Your task to perform on an android device: Open network settings Image 0: 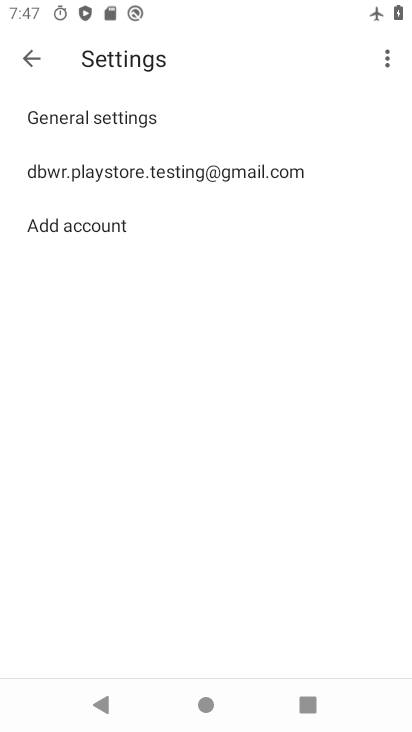
Step 0: press home button
Your task to perform on an android device: Open network settings Image 1: 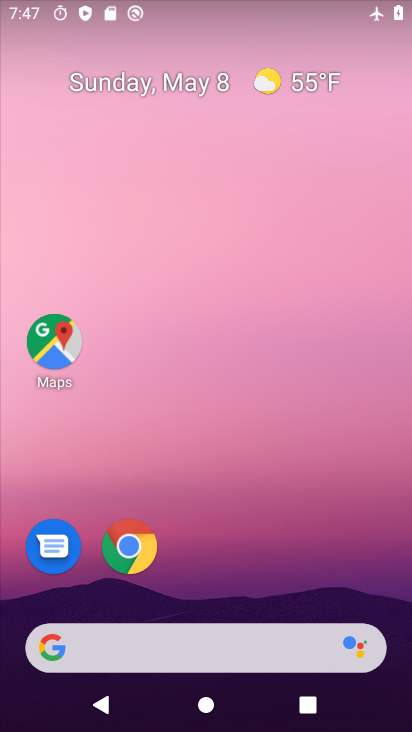
Step 1: drag from (218, 519) to (226, 2)
Your task to perform on an android device: Open network settings Image 2: 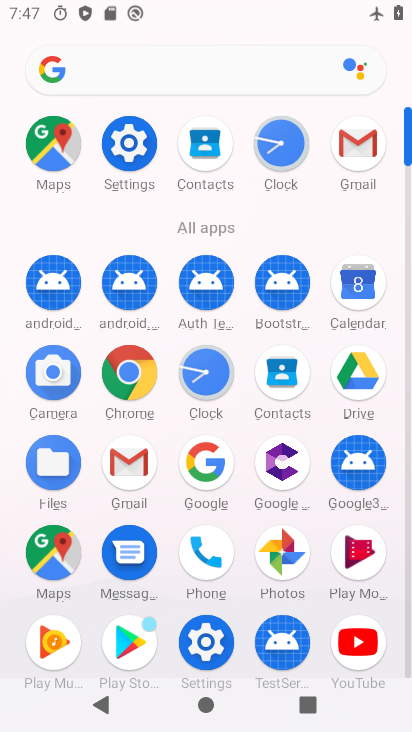
Step 2: click (133, 132)
Your task to perform on an android device: Open network settings Image 3: 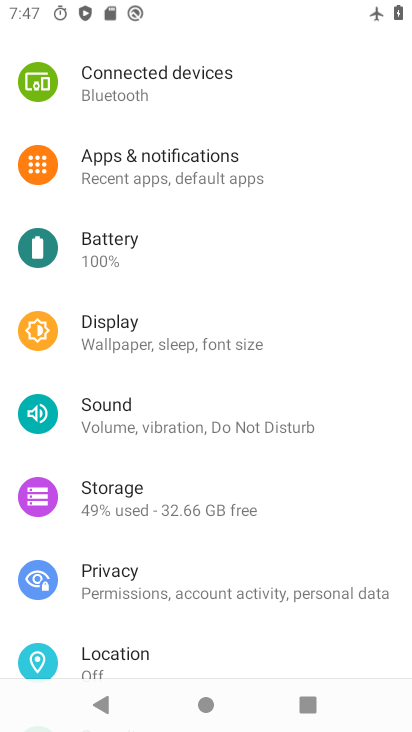
Step 3: drag from (200, 206) to (244, 509)
Your task to perform on an android device: Open network settings Image 4: 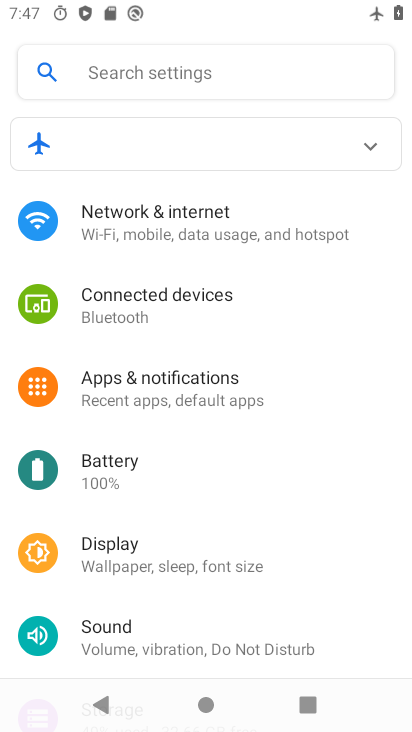
Step 4: click (230, 207)
Your task to perform on an android device: Open network settings Image 5: 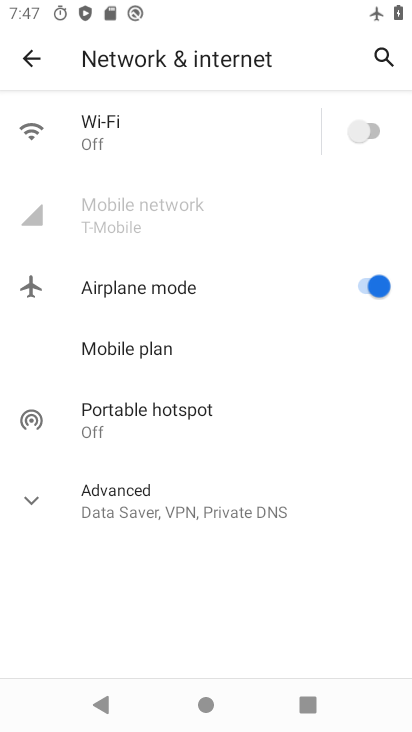
Step 5: task complete